Your task to perform on an android device: turn on translation in the chrome app Image 0: 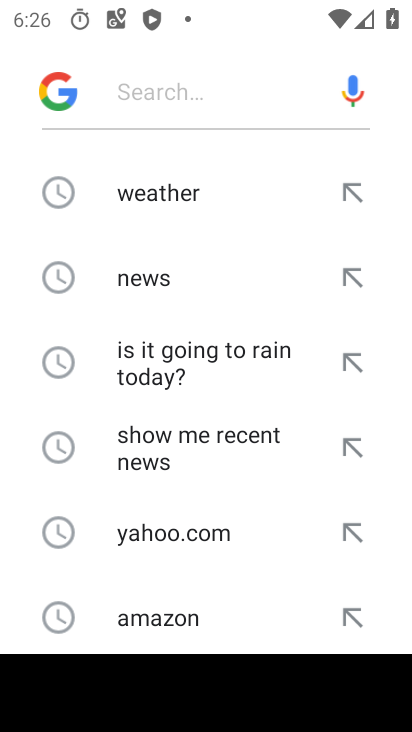
Step 0: press home button
Your task to perform on an android device: turn on translation in the chrome app Image 1: 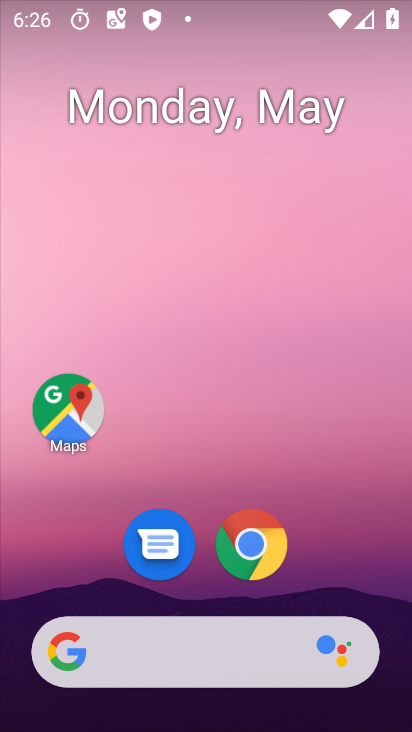
Step 1: click (256, 543)
Your task to perform on an android device: turn on translation in the chrome app Image 2: 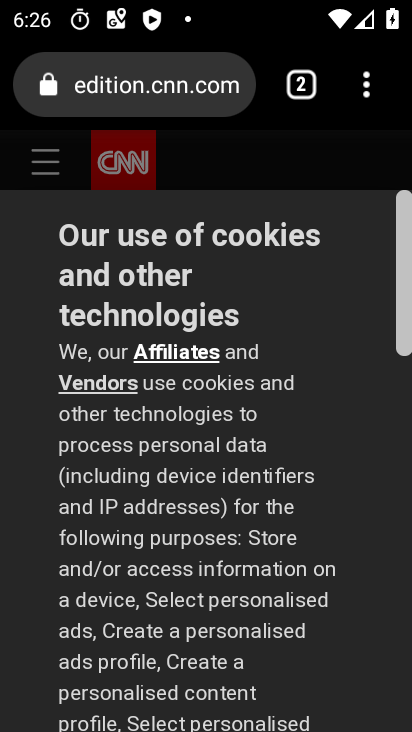
Step 2: click (368, 80)
Your task to perform on an android device: turn on translation in the chrome app Image 3: 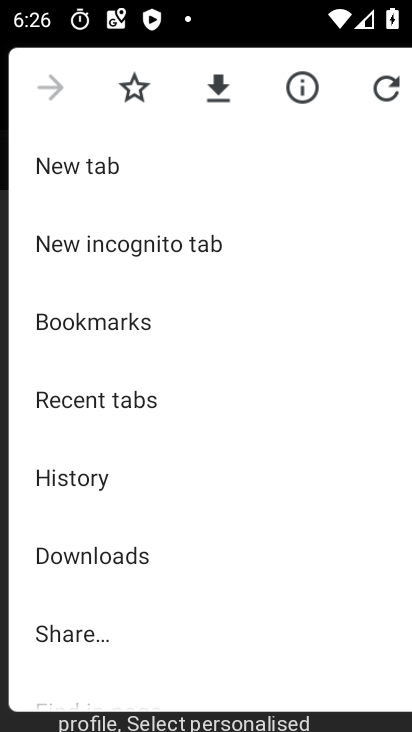
Step 3: drag from (209, 575) to (209, 103)
Your task to perform on an android device: turn on translation in the chrome app Image 4: 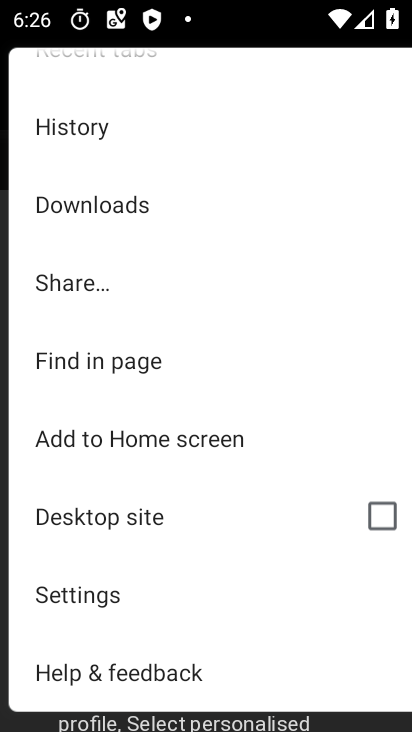
Step 4: click (187, 591)
Your task to perform on an android device: turn on translation in the chrome app Image 5: 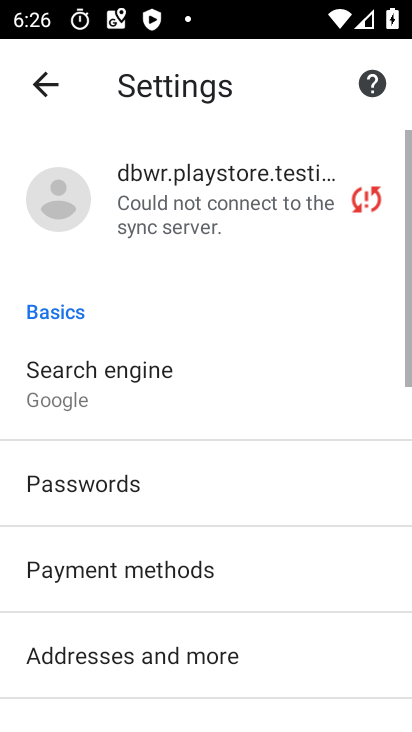
Step 5: drag from (200, 532) to (201, 129)
Your task to perform on an android device: turn on translation in the chrome app Image 6: 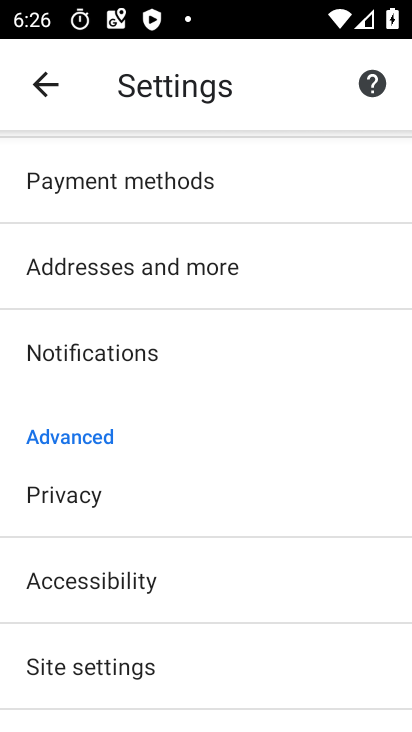
Step 6: drag from (164, 638) to (166, 287)
Your task to perform on an android device: turn on translation in the chrome app Image 7: 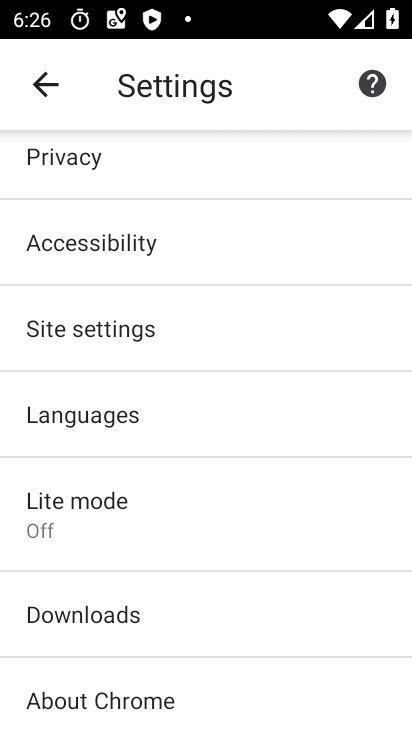
Step 7: click (152, 394)
Your task to perform on an android device: turn on translation in the chrome app Image 8: 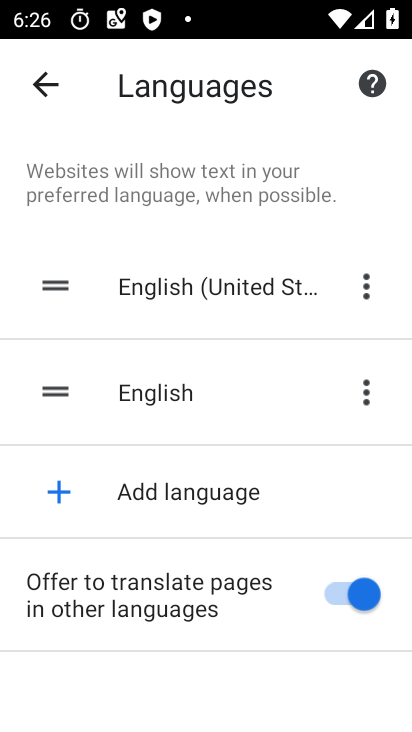
Step 8: task complete